Your task to perform on an android device: Go to ESPN.com Image 0: 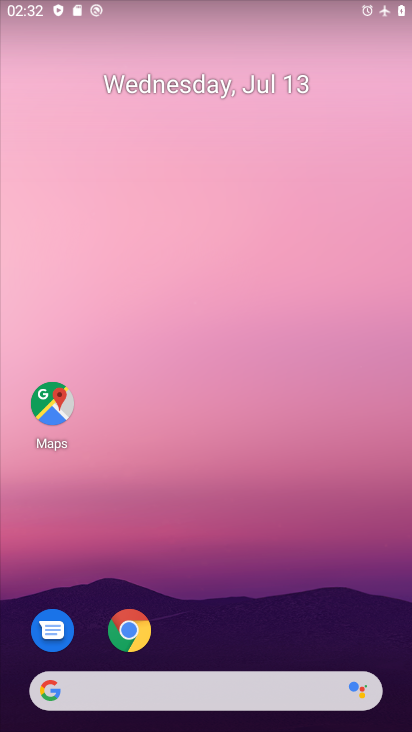
Step 0: click (126, 627)
Your task to perform on an android device: Go to ESPN.com Image 1: 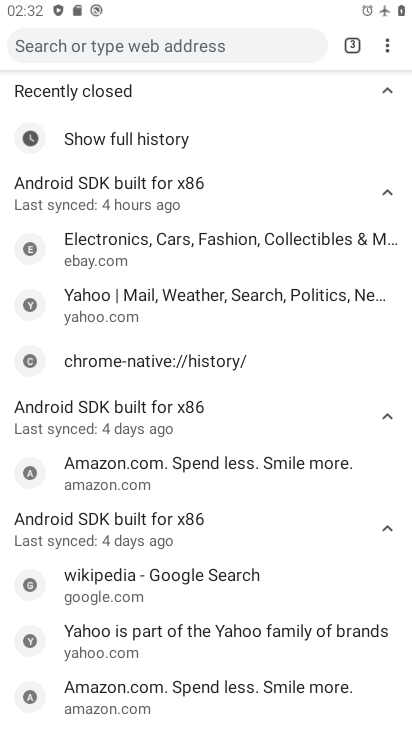
Step 1: click (349, 41)
Your task to perform on an android device: Go to ESPN.com Image 2: 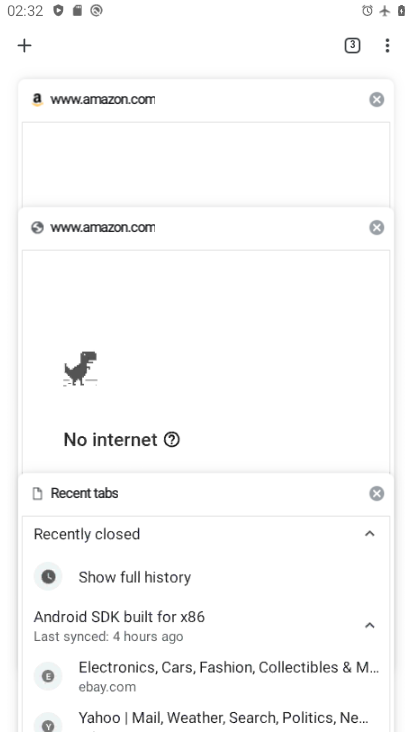
Step 2: click (24, 46)
Your task to perform on an android device: Go to ESPN.com Image 3: 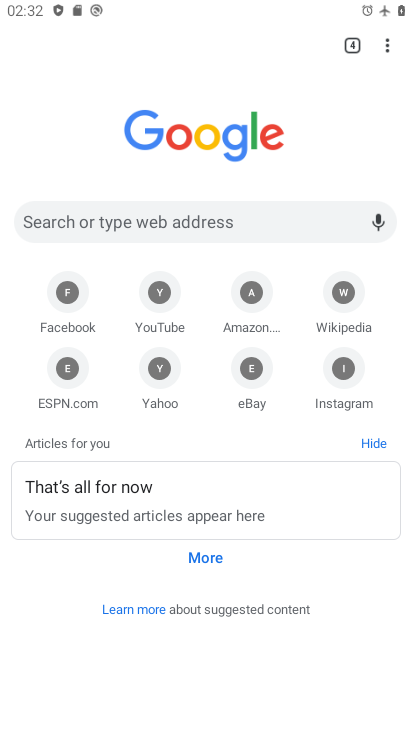
Step 3: click (54, 375)
Your task to perform on an android device: Go to ESPN.com Image 4: 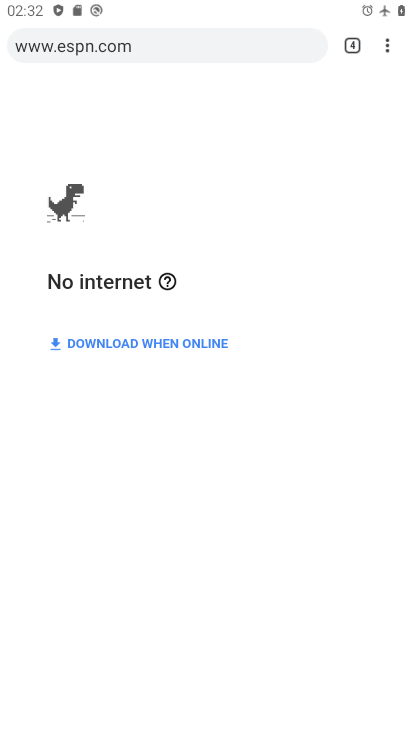
Step 4: task complete